Your task to perform on an android device: turn on javascript in the chrome app Image 0: 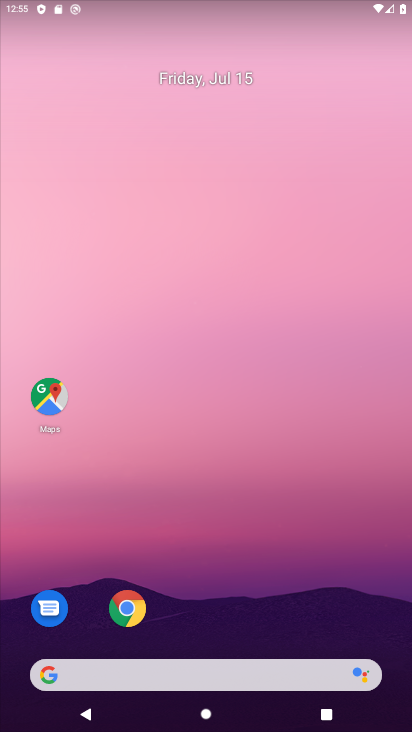
Step 0: drag from (183, 624) to (258, 61)
Your task to perform on an android device: turn on javascript in the chrome app Image 1: 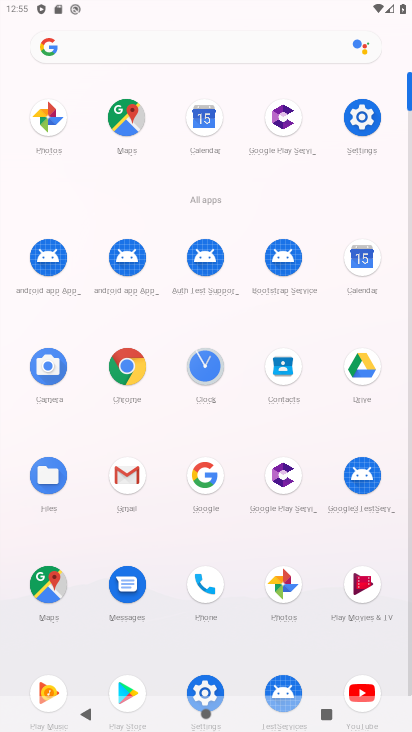
Step 1: drag from (183, 605) to (313, 75)
Your task to perform on an android device: turn on javascript in the chrome app Image 2: 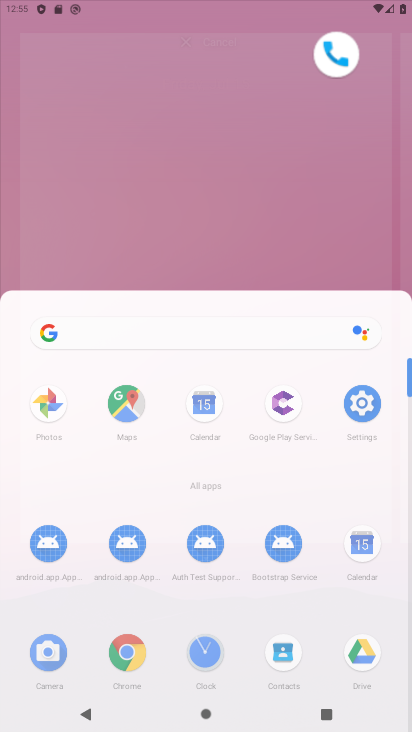
Step 2: drag from (202, 618) to (241, 89)
Your task to perform on an android device: turn on javascript in the chrome app Image 3: 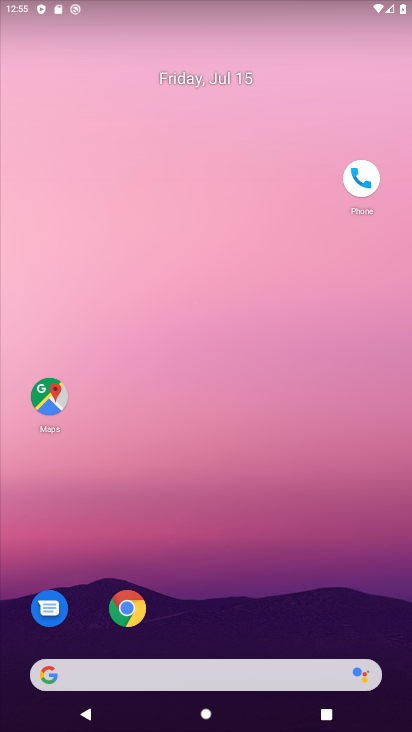
Step 3: click (121, 357)
Your task to perform on an android device: turn on javascript in the chrome app Image 4: 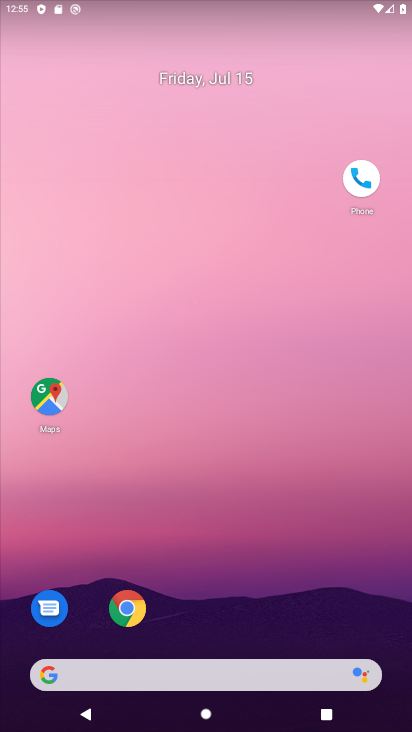
Step 4: click (115, 601)
Your task to perform on an android device: turn on javascript in the chrome app Image 5: 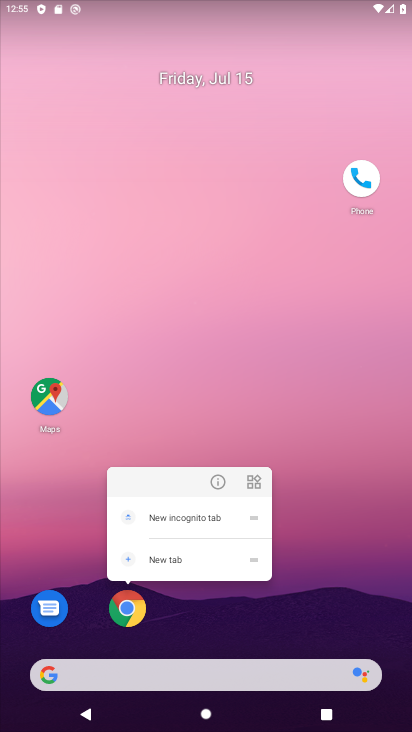
Step 5: click (224, 479)
Your task to perform on an android device: turn on javascript in the chrome app Image 6: 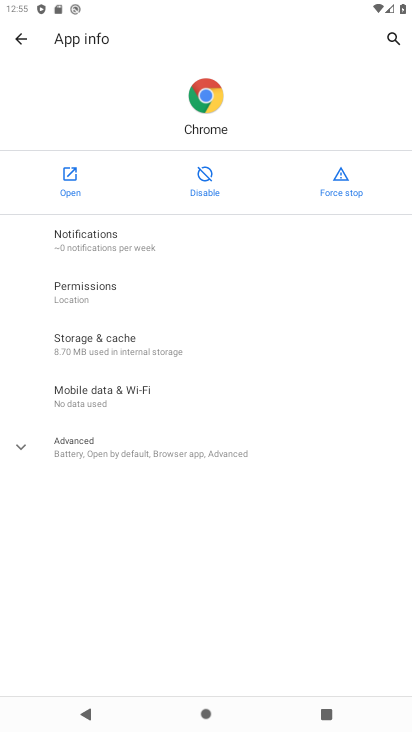
Step 6: click (56, 173)
Your task to perform on an android device: turn on javascript in the chrome app Image 7: 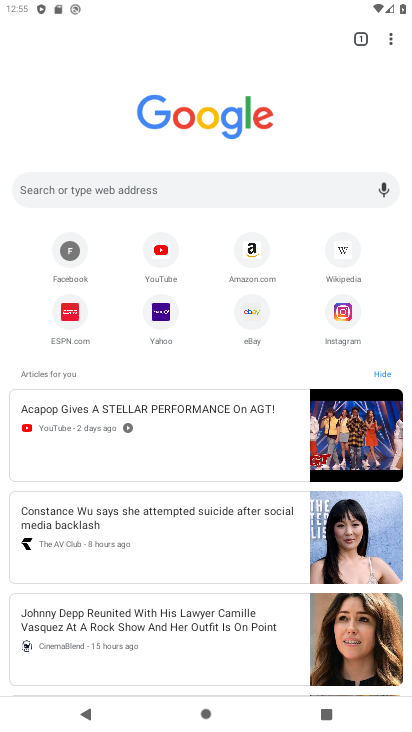
Step 7: drag from (389, 33) to (280, 322)
Your task to perform on an android device: turn on javascript in the chrome app Image 8: 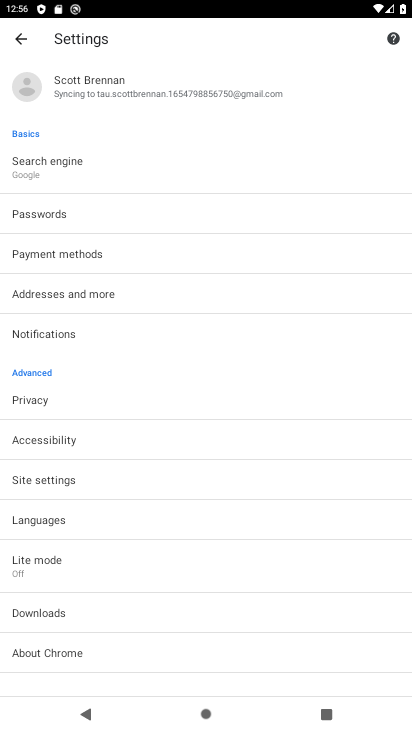
Step 8: click (71, 482)
Your task to perform on an android device: turn on javascript in the chrome app Image 9: 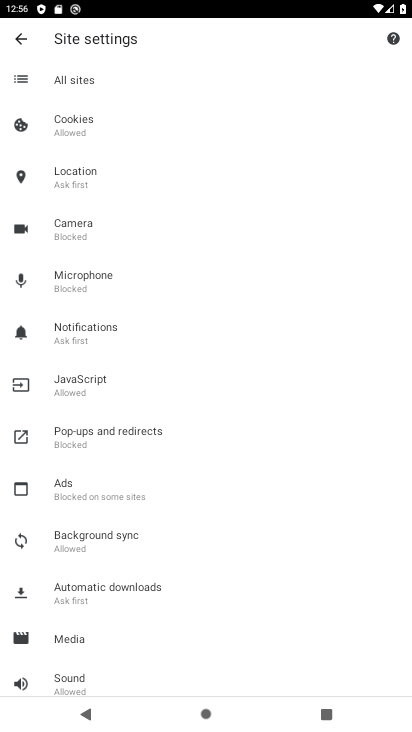
Step 9: click (67, 382)
Your task to perform on an android device: turn on javascript in the chrome app Image 10: 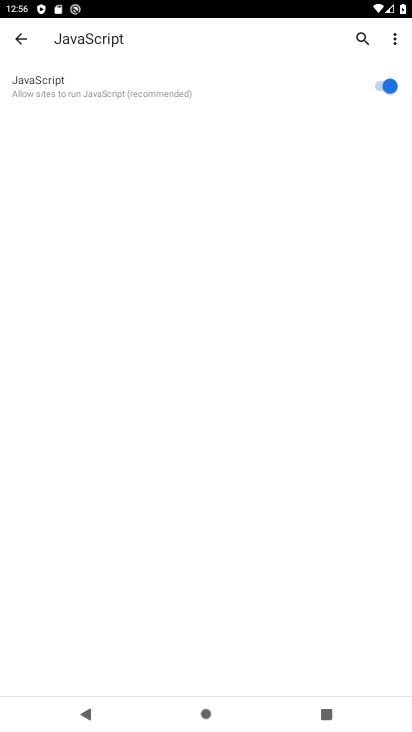
Step 10: task complete